Your task to perform on an android device: Is it going to rain this weekend? Image 0: 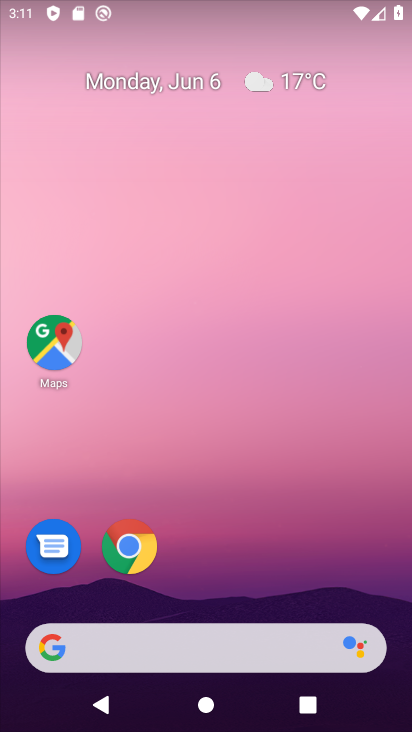
Step 0: drag from (304, 565) to (339, 19)
Your task to perform on an android device: Is it going to rain this weekend? Image 1: 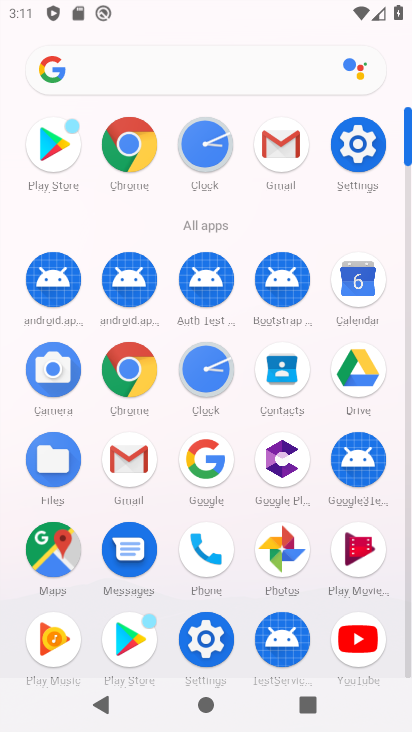
Step 1: press home button
Your task to perform on an android device: Is it going to rain this weekend? Image 2: 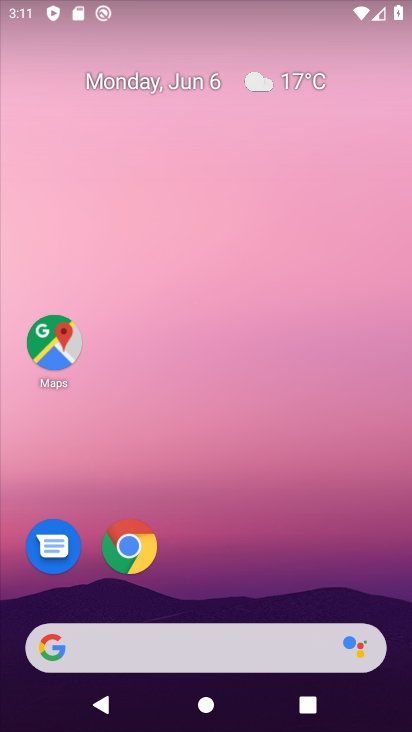
Step 2: click (301, 77)
Your task to perform on an android device: Is it going to rain this weekend? Image 3: 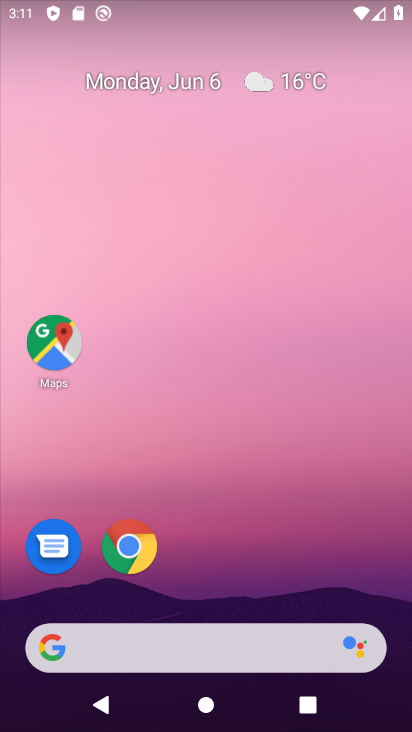
Step 3: click (301, 78)
Your task to perform on an android device: Is it going to rain this weekend? Image 4: 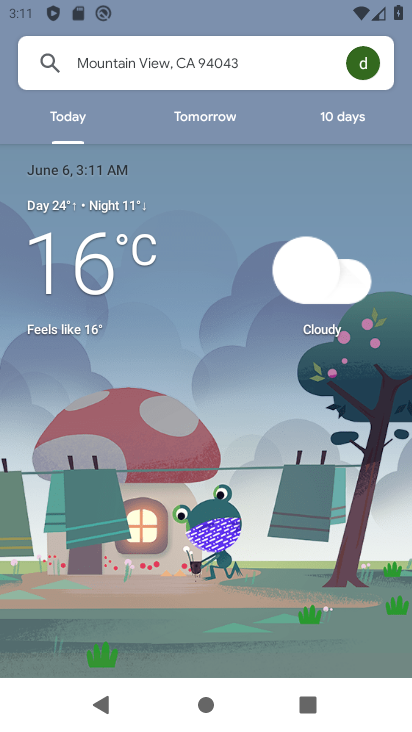
Step 4: click (335, 116)
Your task to perform on an android device: Is it going to rain this weekend? Image 5: 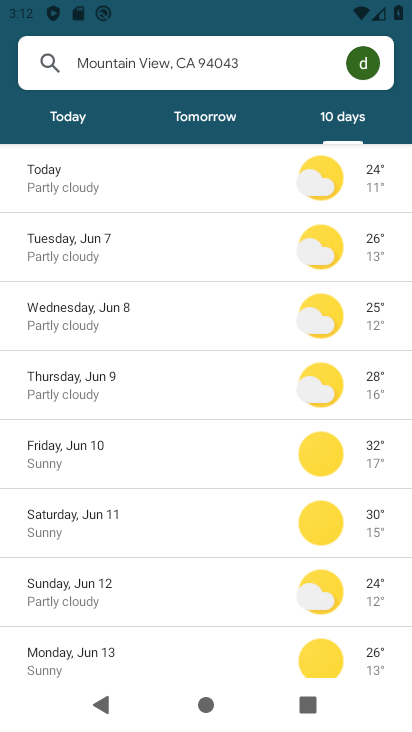
Step 5: task complete